Your task to perform on an android device: check out phone information Image 0: 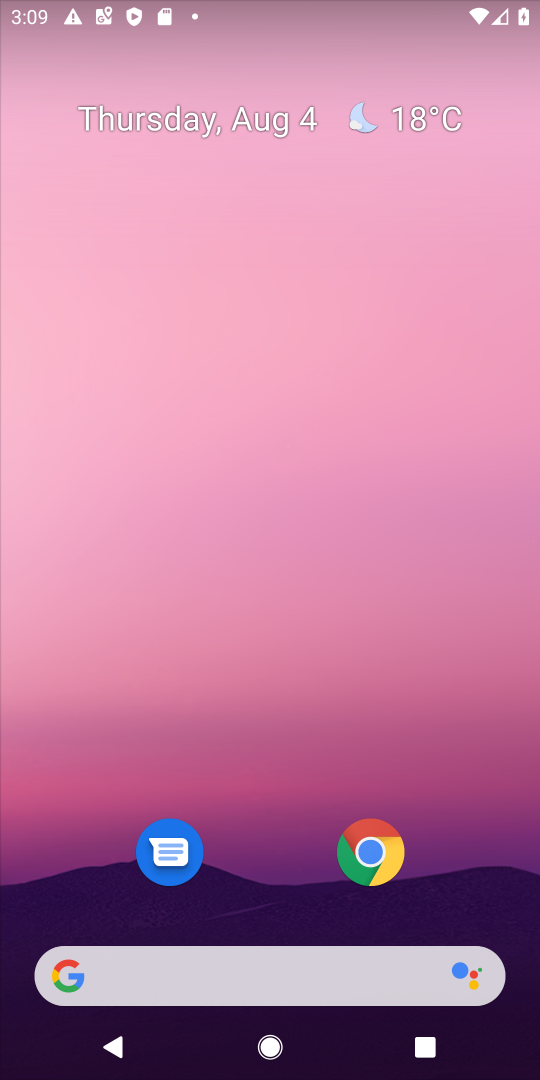
Step 0: drag from (168, 884) to (334, 52)
Your task to perform on an android device: check out phone information Image 1: 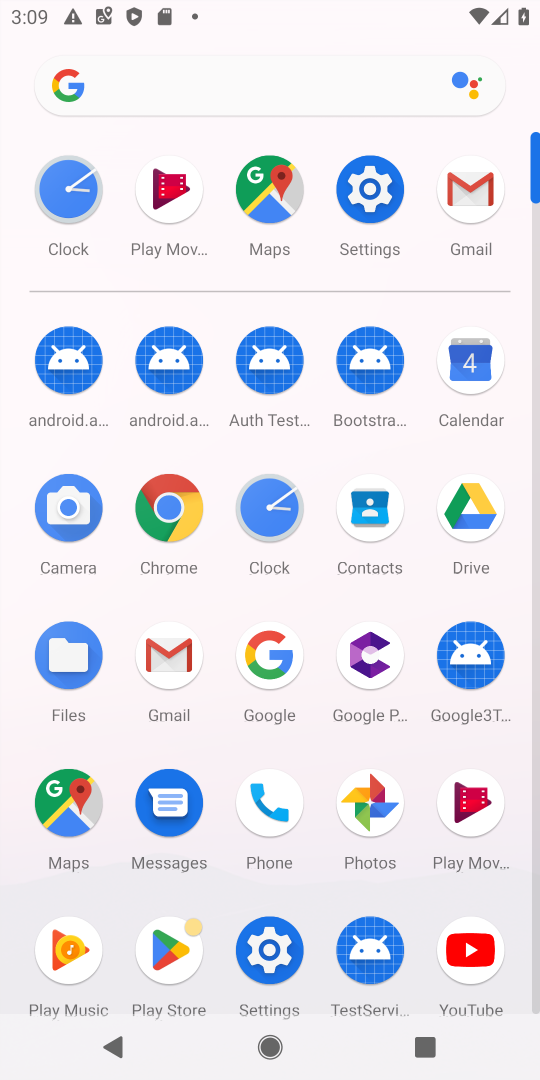
Step 1: click (378, 184)
Your task to perform on an android device: check out phone information Image 2: 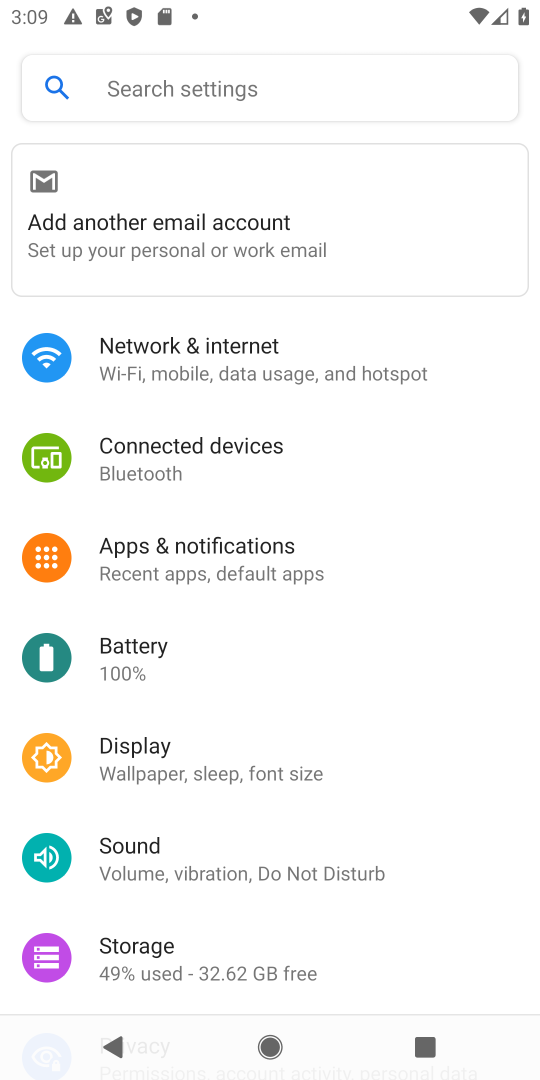
Step 2: drag from (169, 938) to (300, 120)
Your task to perform on an android device: check out phone information Image 3: 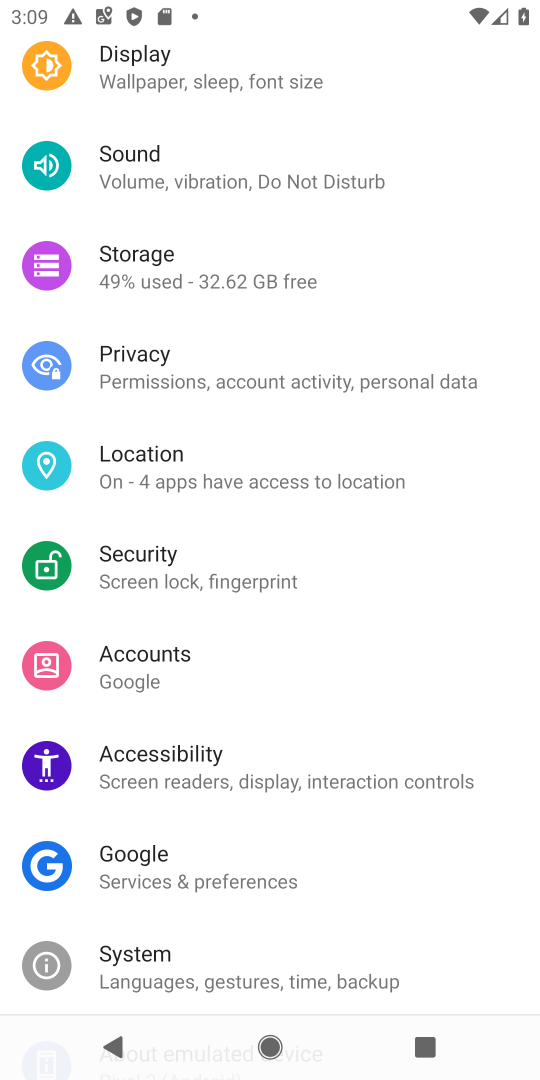
Step 3: drag from (251, 820) to (318, 10)
Your task to perform on an android device: check out phone information Image 4: 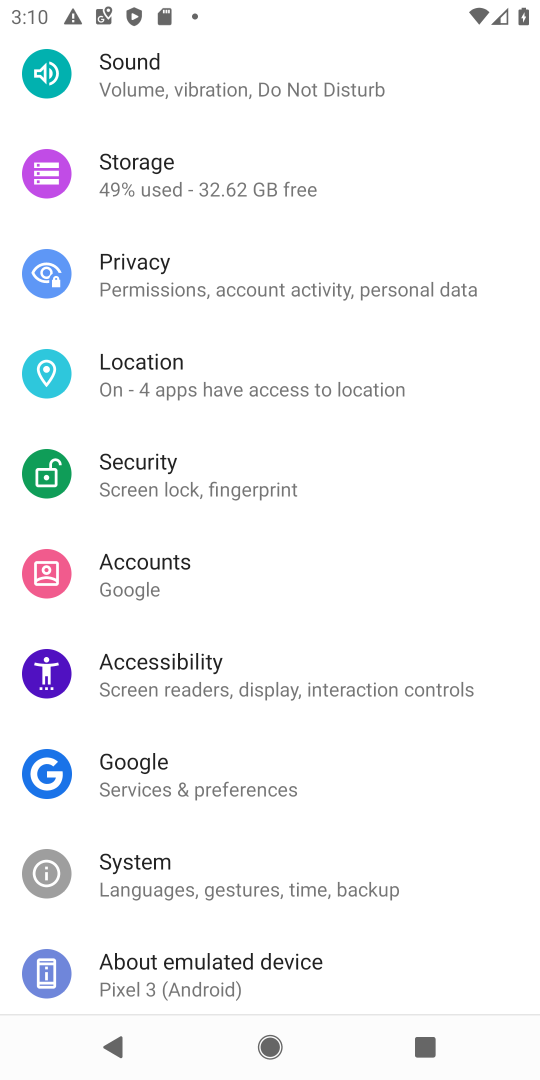
Step 4: click (232, 969)
Your task to perform on an android device: check out phone information Image 5: 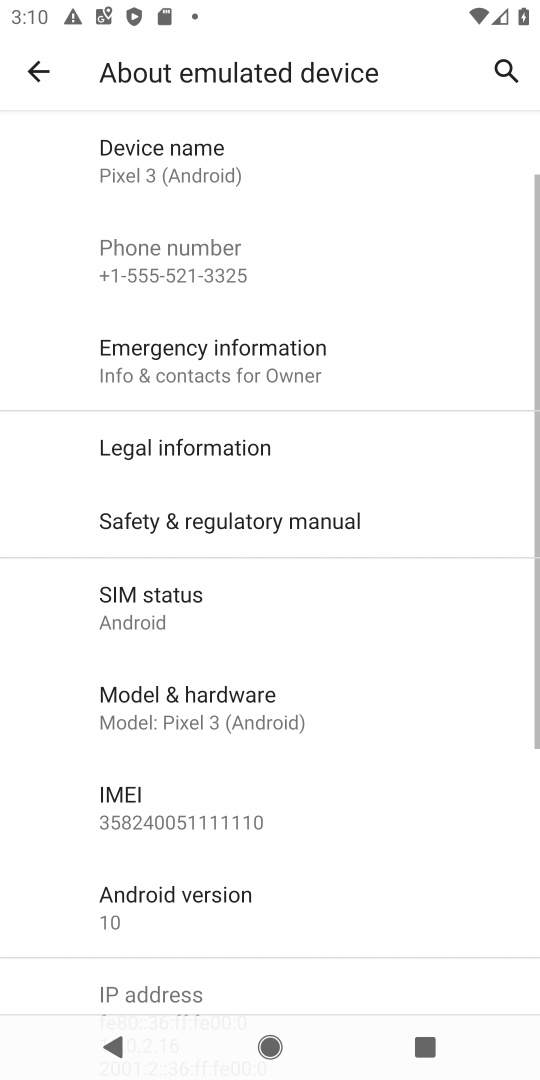
Step 5: task complete